Your task to perform on an android device: find which apps use the phone's location Image 0: 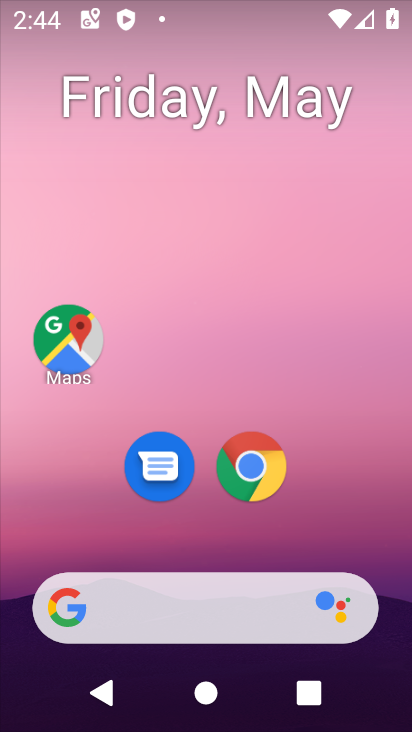
Step 0: drag from (176, 524) to (308, 15)
Your task to perform on an android device: find which apps use the phone's location Image 1: 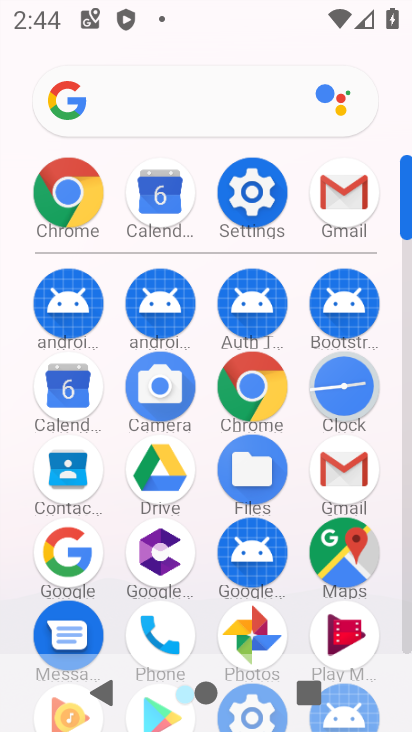
Step 1: click (269, 178)
Your task to perform on an android device: find which apps use the phone's location Image 2: 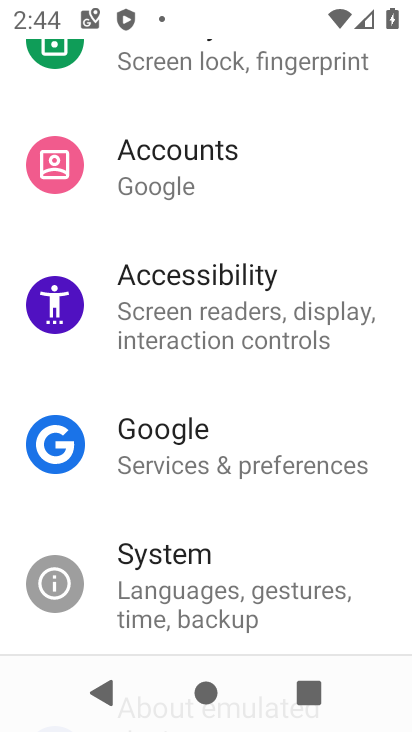
Step 2: drag from (162, 595) to (334, 50)
Your task to perform on an android device: find which apps use the phone's location Image 3: 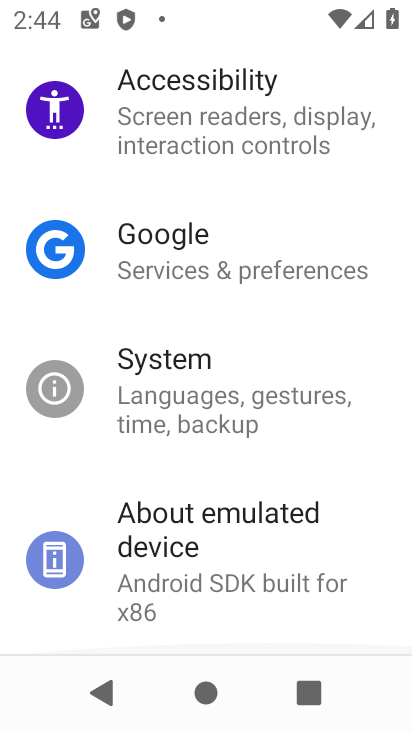
Step 3: drag from (287, 89) to (200, 707)
Your task to perform on an android device: find which apps use the phone's location Image 4: 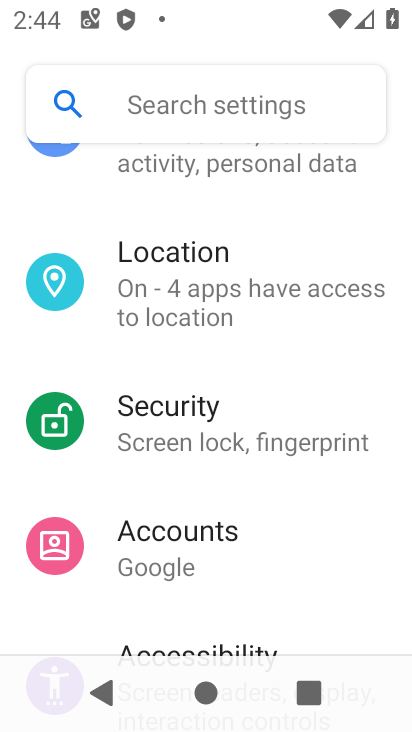
Step 4: click (179, 272)
Your task to perform on an android device: find which apps use the phone's location Image 5: 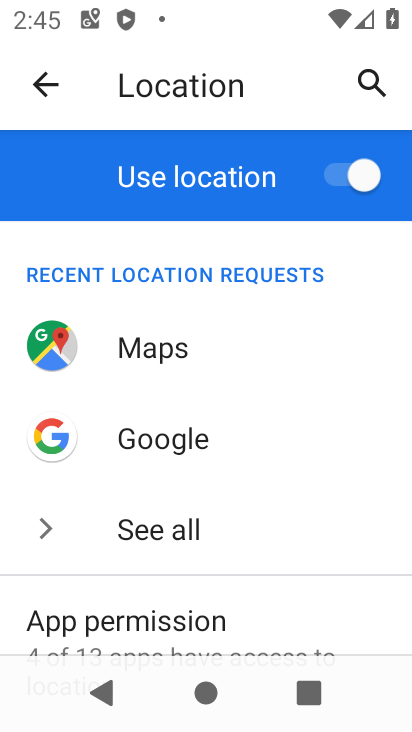
Step 5: drag from (174, 601) to (311, 133)
Your task to perform on an android device: find which apps use the phone's location Image 6: 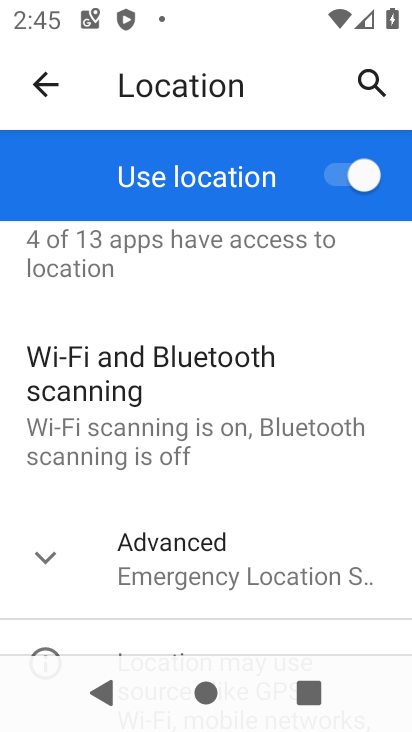
Step 6: drag from (215, 302) to (203, 645)
Your task to perform on an android device: find which apps use the phone's location Image 7: 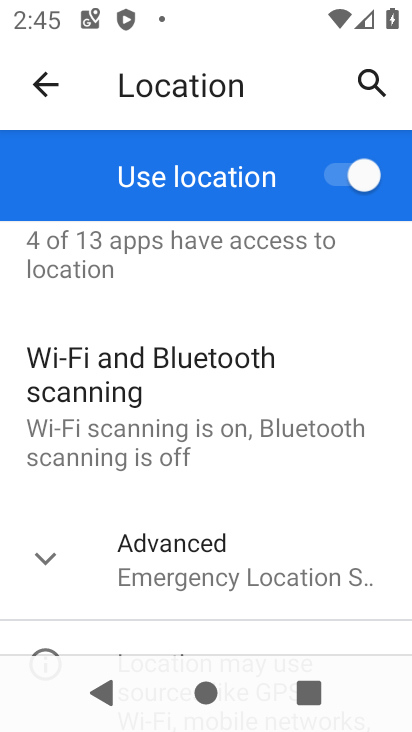
Step 7: drag from (195, 213) to (145, 646)
Your task to perform on an android device: find which apps use the phone's location Image 8: 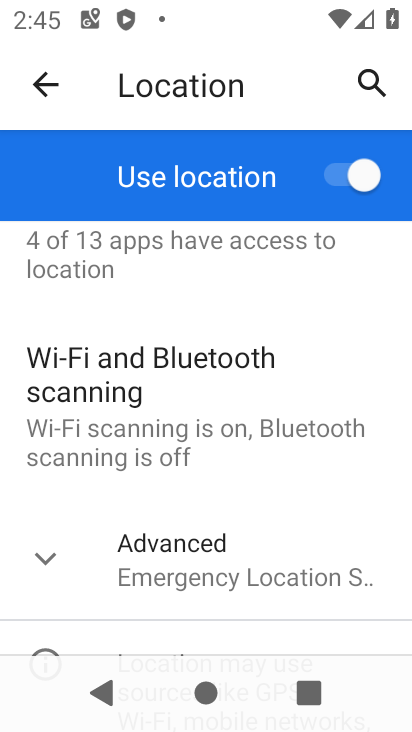
Step 8: drag from (240, 307) to (161, 712)
Your task to perform on an android device: find which apps use the phone's location Image 9: 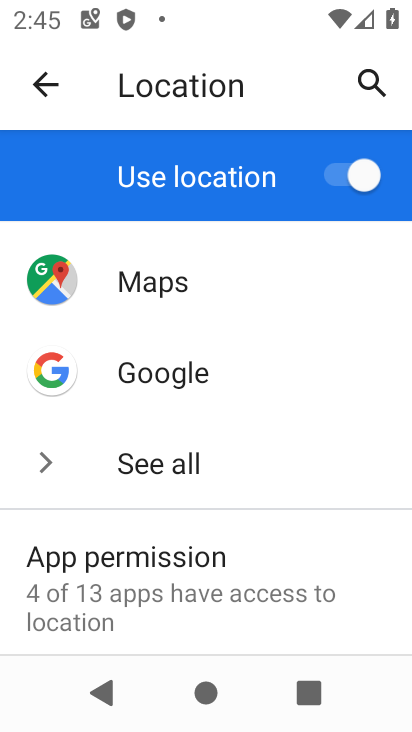
Step 9: click (107, 568)
Your task to perform on an android device: find which apps use the phone's location Image 10: 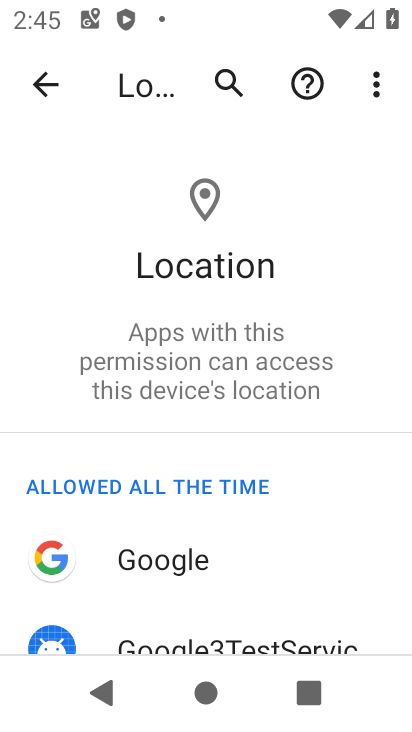
Step 10: task complete